Your task to perform on an android device: check android version Image 0: 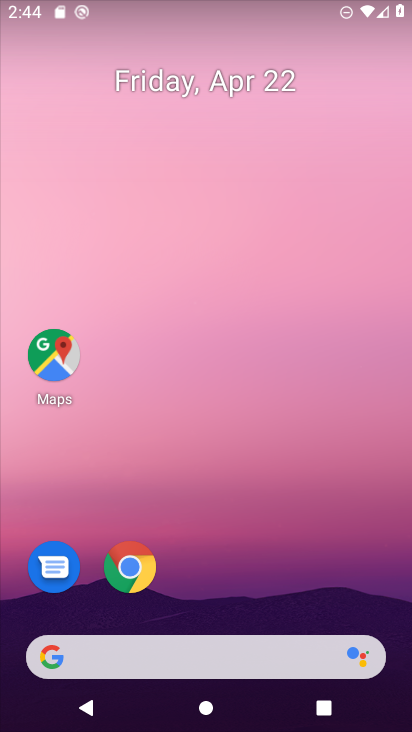
Step 0: drag from (221, 582) to (269, 175)
Your task to perform on an android device: check android version Image 1: 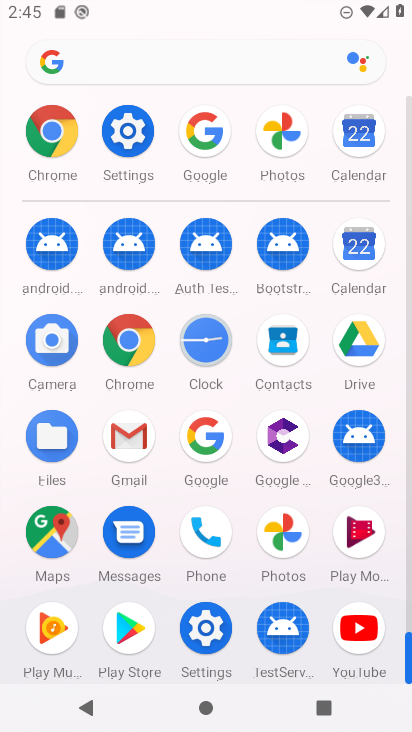
Step 1: click (143, 123)
Your task to perform on an android device: check android version Image 2: 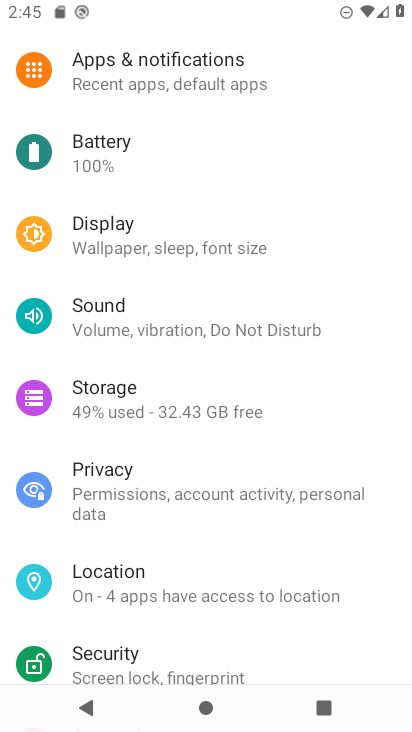
Step 2: drag from (234, 600) to (263, 47)
Your task to perform on an android device: check android version Image 3: 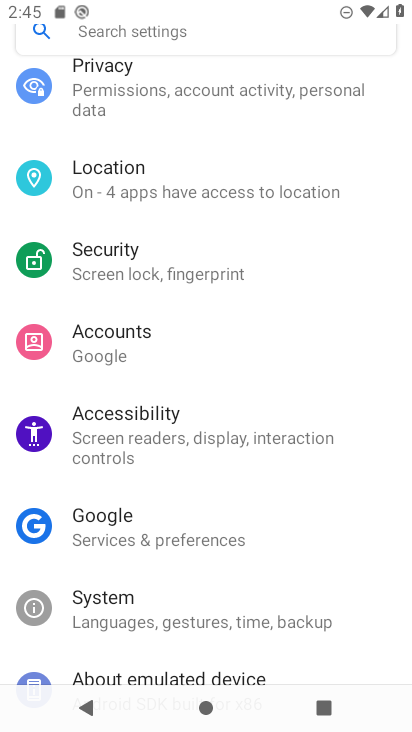
Step 3: drag from (250, 643) to (282, 144)
Your task to perform on an android device: check android version Image 4: 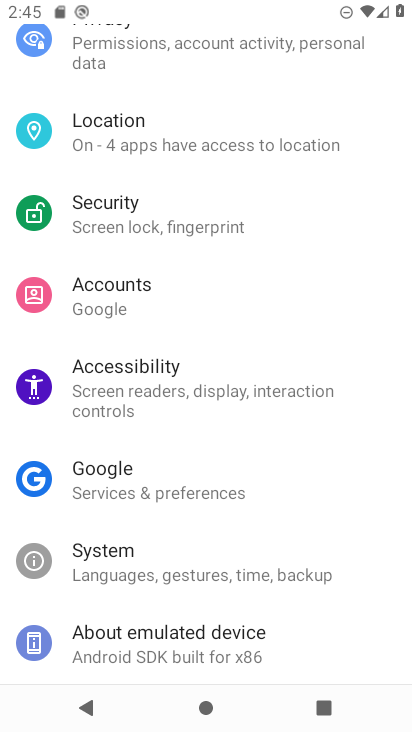
Step 4: drag from (261, 645) to (256, 190)
Your task to perform on an android device: check android version Image 5: 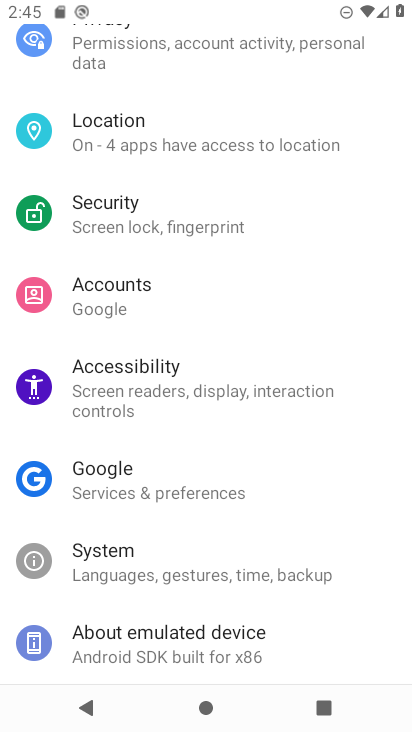
Step 5: click (234, 646)
Your task to perform on an android device: check android version Image 6: 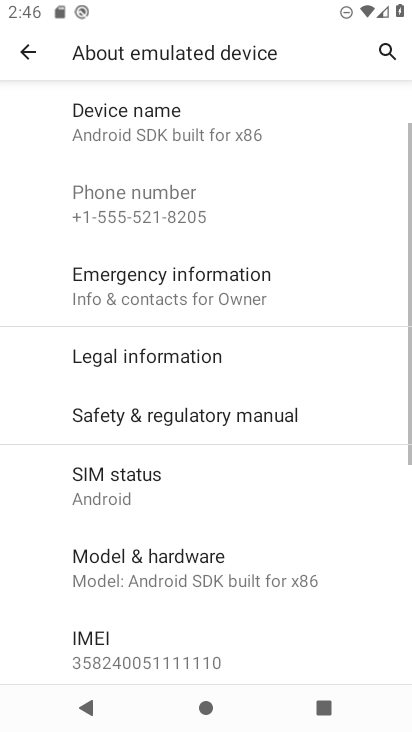
Step 6: task complete